Your task to perform on an android device: turn off translation in the chrome app Image 0: 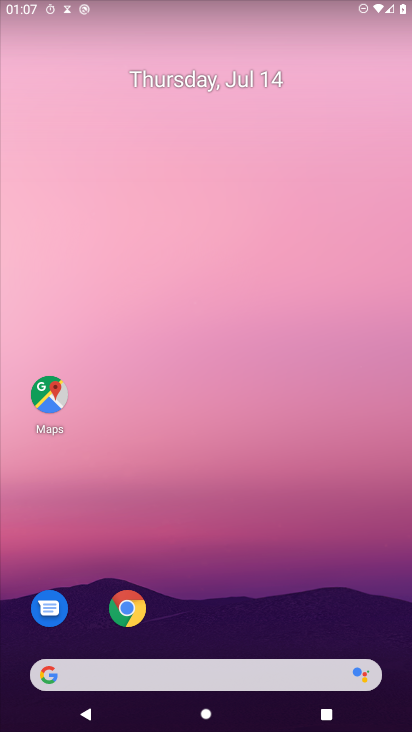
Step 0: press home button
Your task to perform on an android device: turn off translation in the chrome app Image 1: 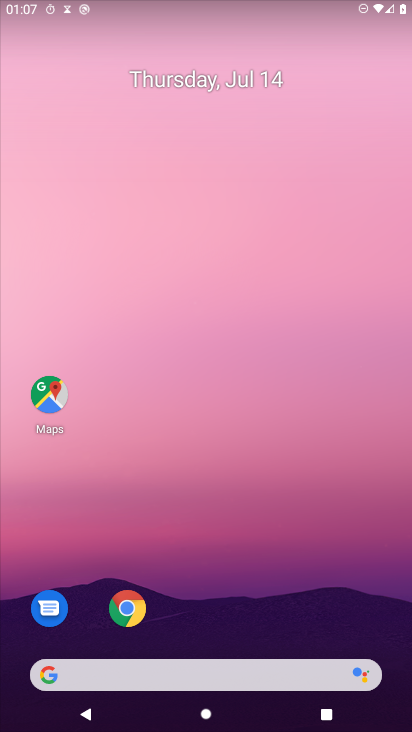
Step 1: click (122, 607)
Your task to perform on an android device: turn off translation in the chrome app Image 2: 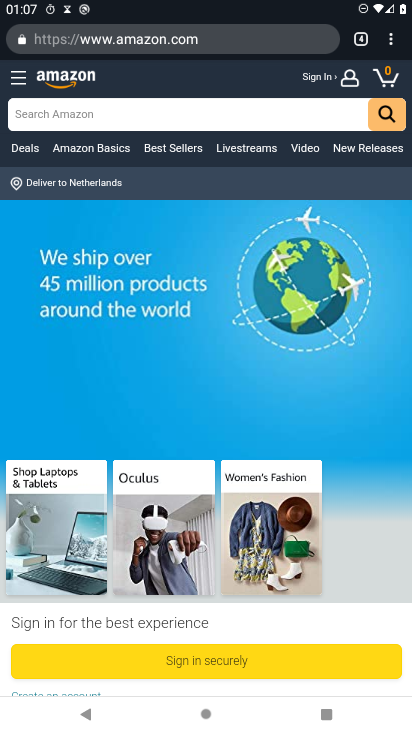
Step 2: drag from (389, 42) to (255, 462)
Your task to perform on an android device: turn off translation in the chrome app Image 3: 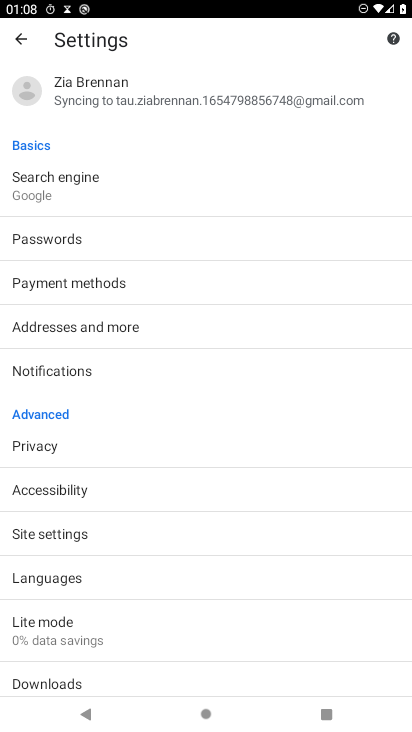
Step 3: click (48, 582)
Your task to perform on an android device: turn off translation in the chrome app Image 4: 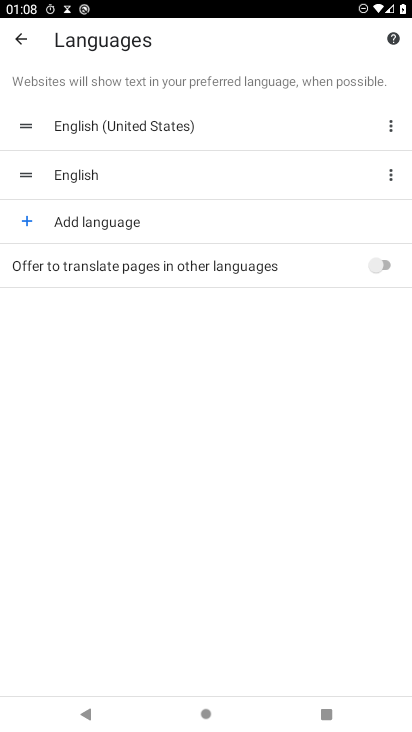
Step 4: task complete